Your task to perform on an android device: Open ESPN.com Image 0: 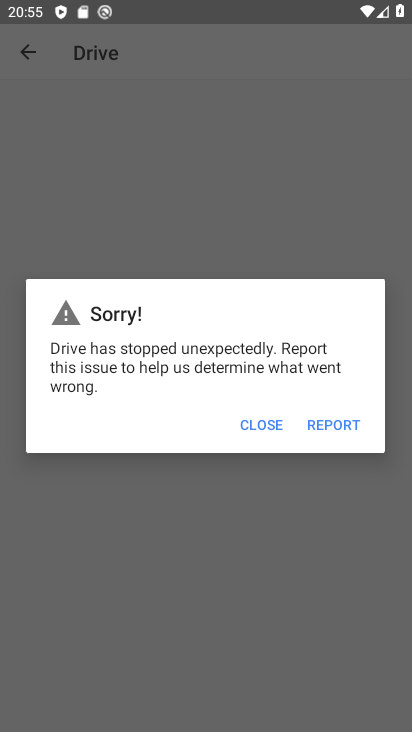
Step 0: click (252, 425)
Your task to perform on an android device: Open ESPN.com Image 1: 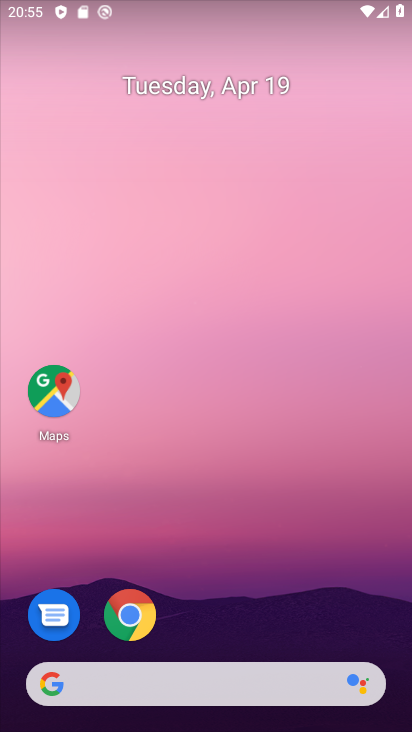
Step 1: drag from (195, 663) to (290, 351)
Your task to perform on an android device: Open ESPN.com Image 2: 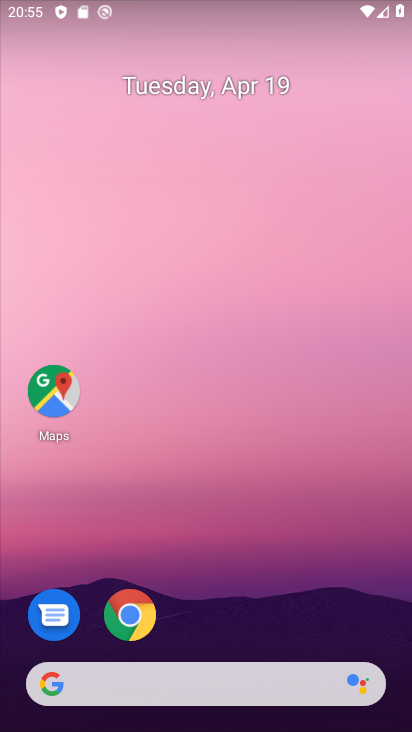
Step 2: drag from (241, 659) to (218, 267)
Your task to perform on an android device: Open ESPN.com Image 3: 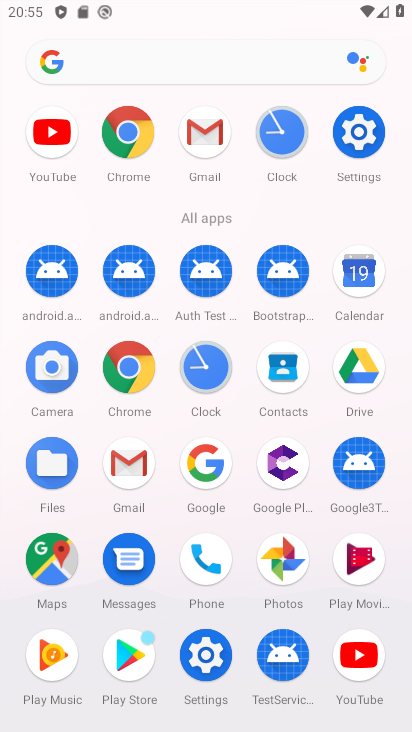
Step 3: click (123, 363)
Your task to perform on an android device: Open ESPN.com Image 4: 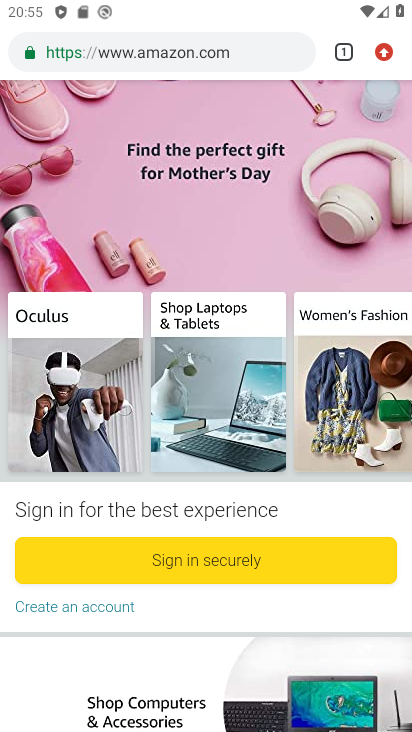
Step 4: click (342, 57)
Your task to perform on an android device: Open ESPN.com Image 5: 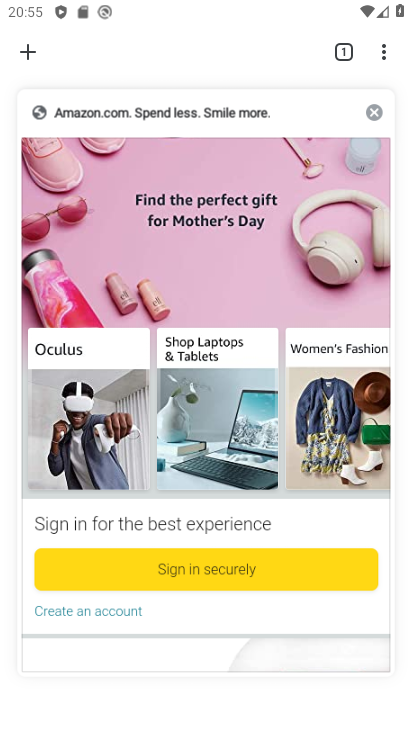
Step 5: click (372, 106)
Your task to perform on an android device: Open ESPN.com Image 6: 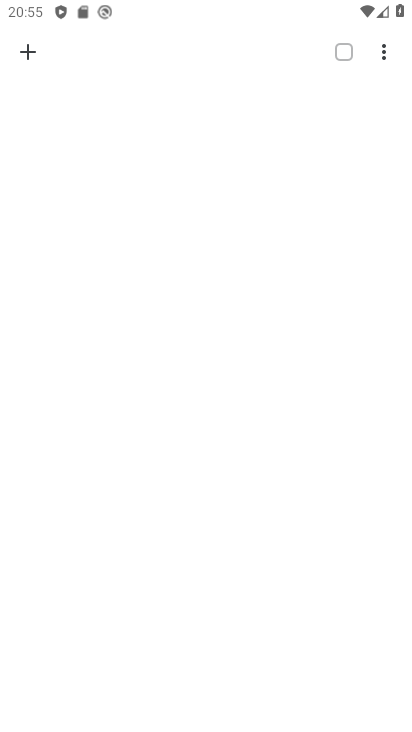
Step 6: click (32, 51)
Your task to perform on an android device: Open ESPN.com Image 7: 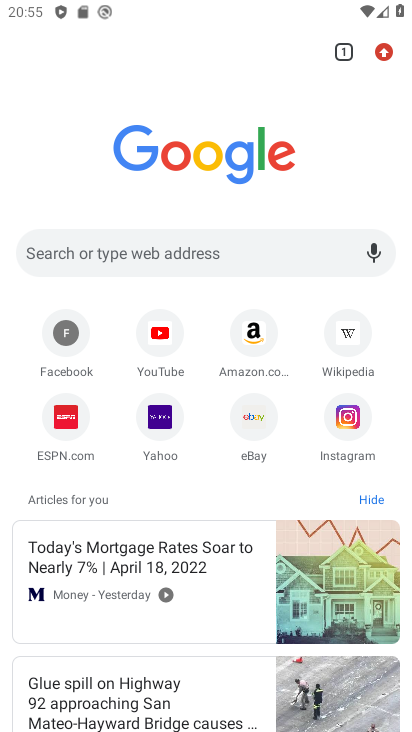
Step 7: click (62, 426)
Your task to perform on an android device: Open ESPN.com Image 8: 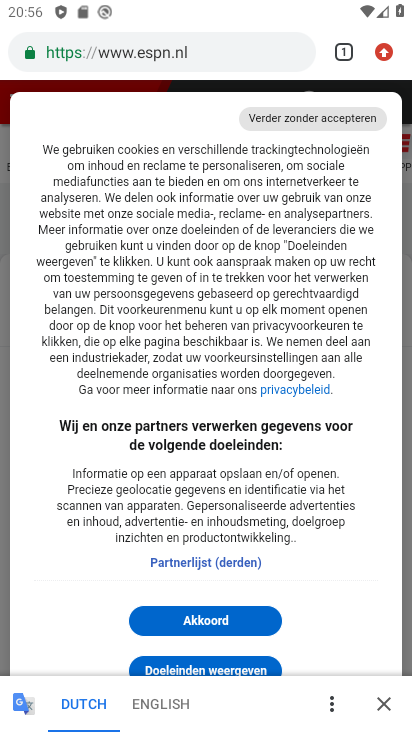
Step 8: task complete